Your task to perform on an android device: When is my next appointment? Image 0: 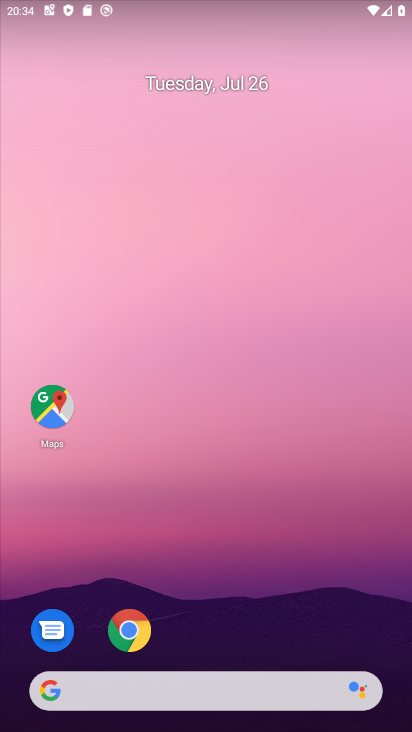
Step 0: drag from (256, 653) to (279, 132)
Your task to perform on an android device: When is my next appointment? Image 1: 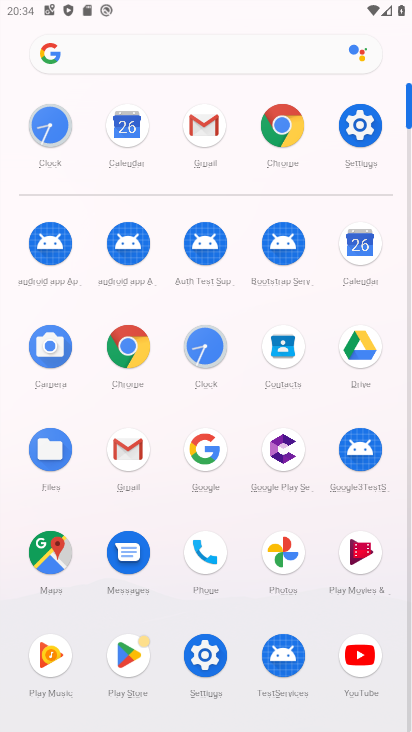
Step 1: click (342, 257)
Your task to perform on an android device: When is my next appointment? Image 2: 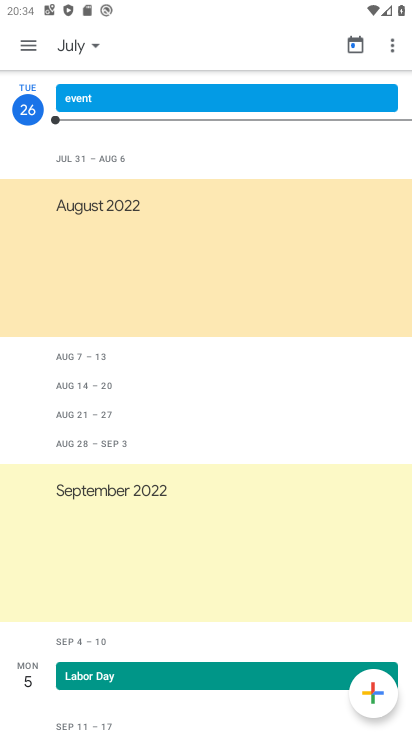
Step 2: task complete